Your task to perform on an android device: Check the settings for the Lyft app Image 0: 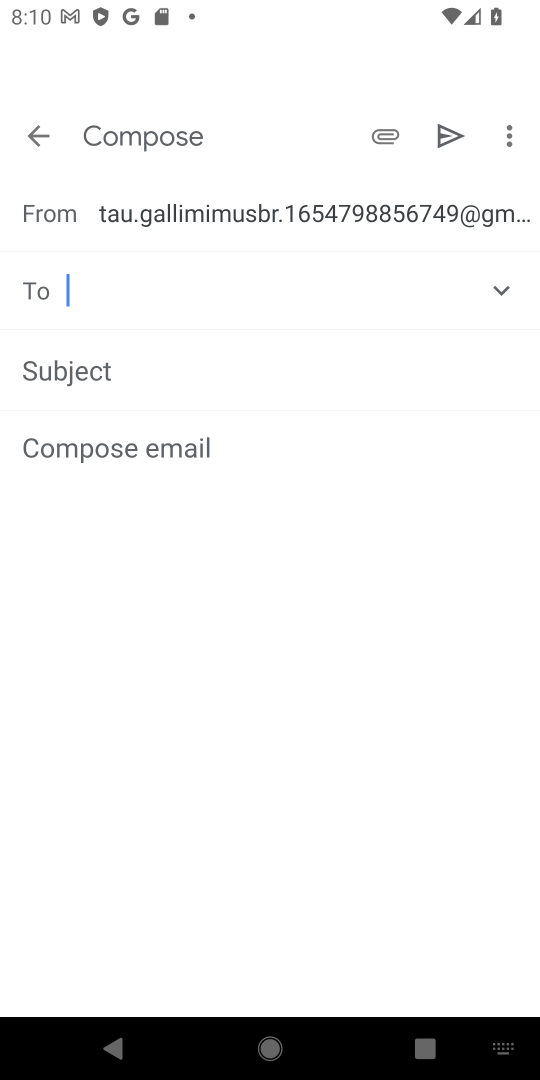
Step 0: press home button
Your task to perform on an android device: Check the settings for the Lyft app Image 1: 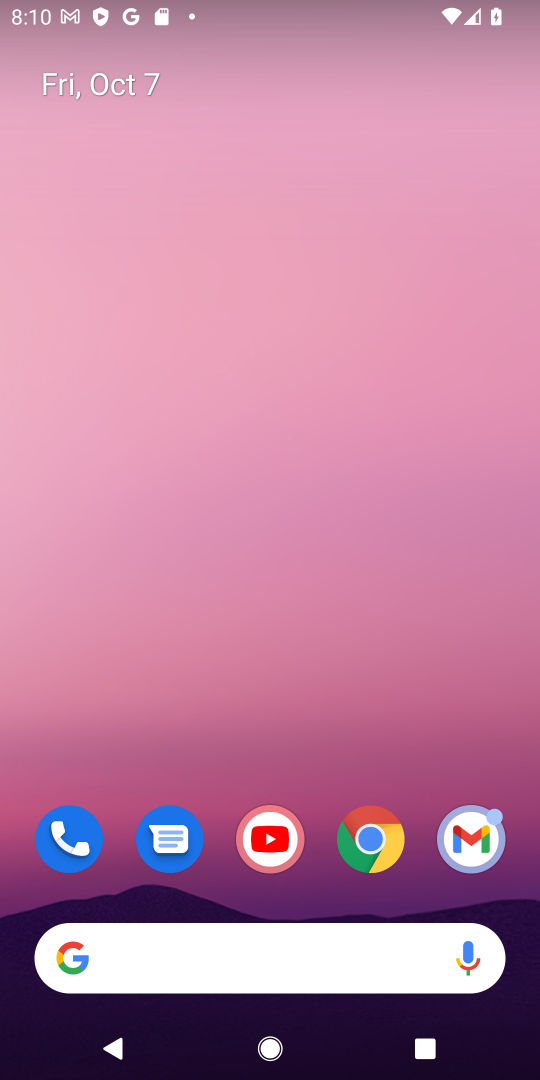
Step 1: click (364, 851)
Your task to perform on an android device: Check the settings for the Lyft app Image 2: 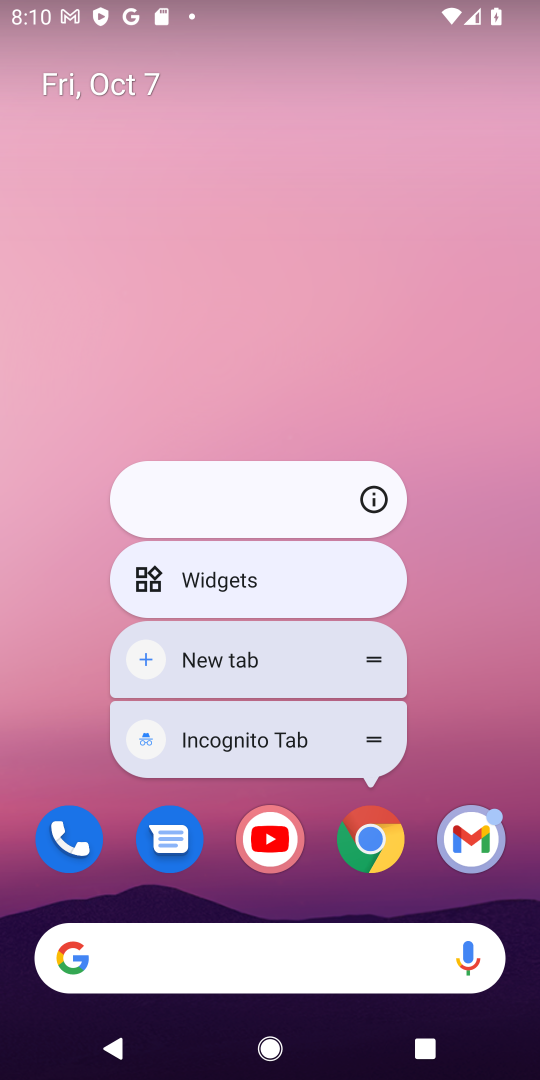
Step 2: press back button
Your task to perform on an android device: Check the settings for the Lyft app Image 3: 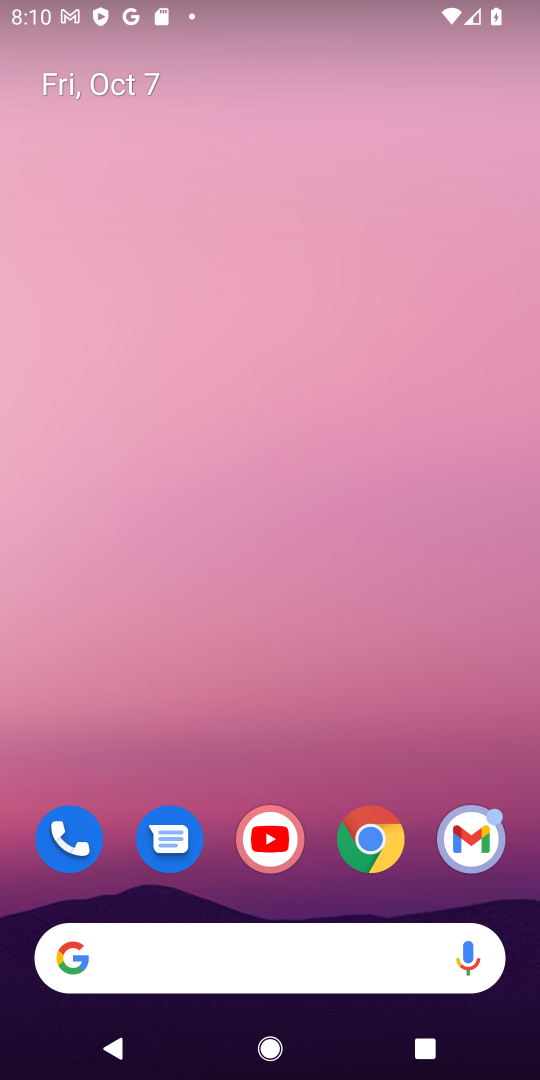
Step 3: press back button
Your task to perform on an android device: Check the settings for the Lyft app Image 4: 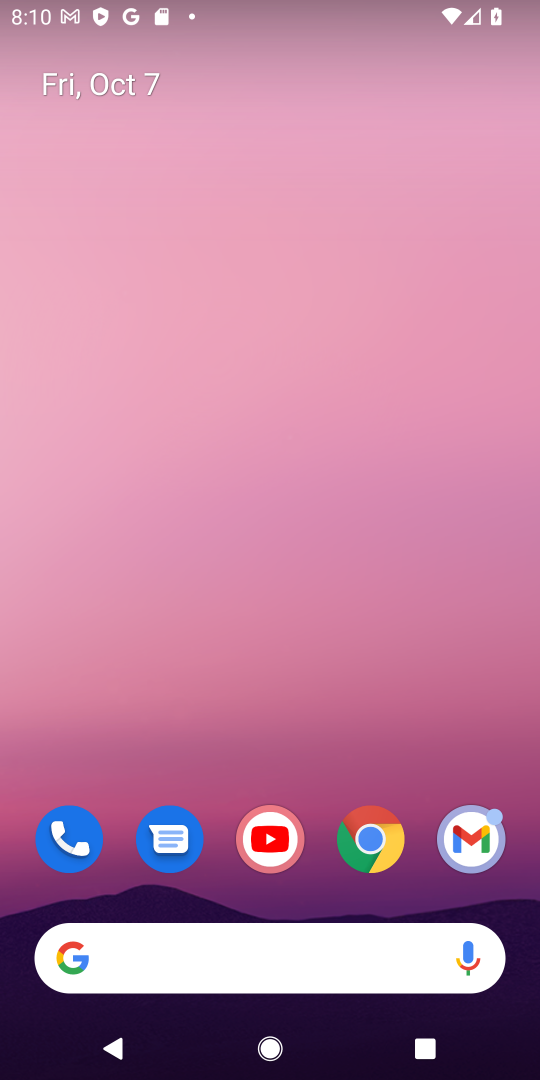
Step 4: click (361, 850)
Your task to perform on an android device: Check the settings for the Lyft app Image 5: 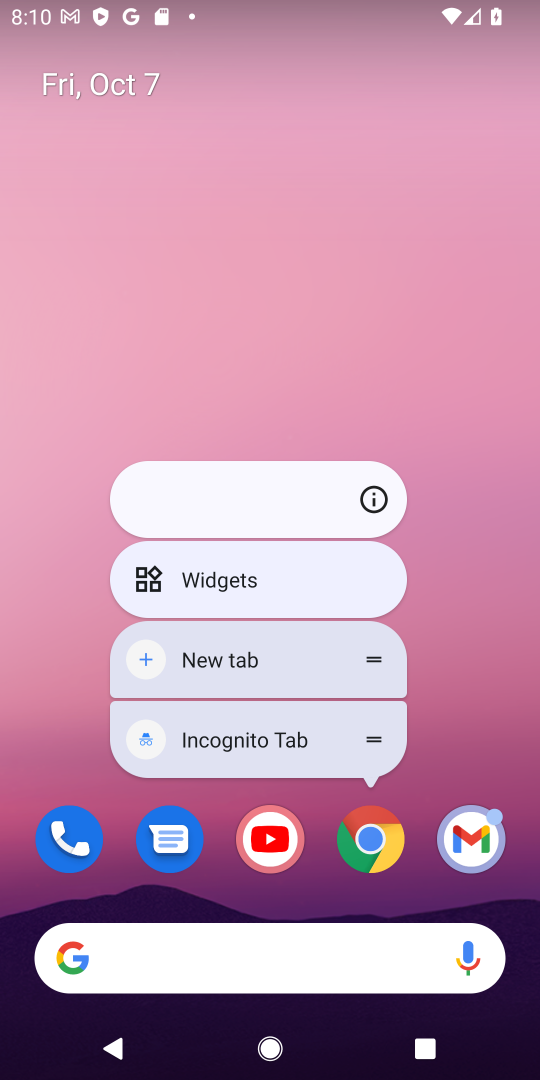
Step 5: click (362, 841)
Your task to perform on an android device: Check the settings for the Lyft app Image 6: 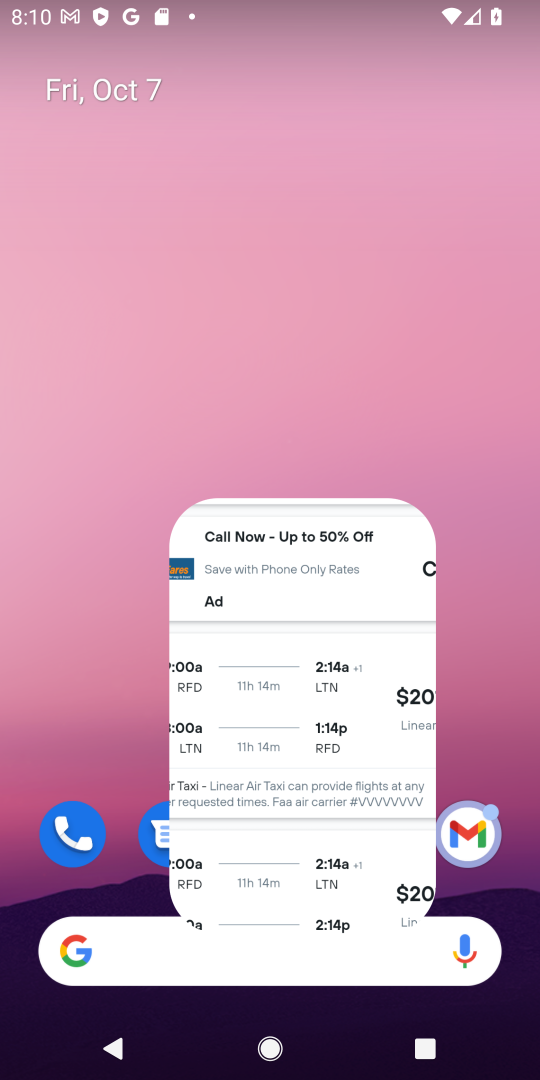
Step 6: press home button
Your task to perform on an android device: Check the settings for the Lyft app Image 7: 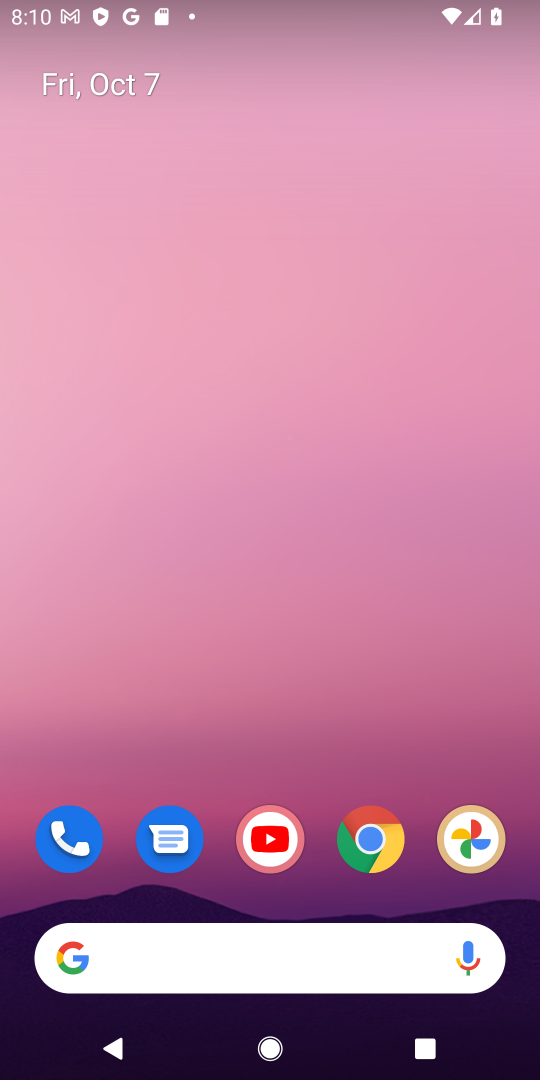
Step 7: click (365, 830)
Your task to perform on an android device: Check the settings for the Lyft app Image 8: 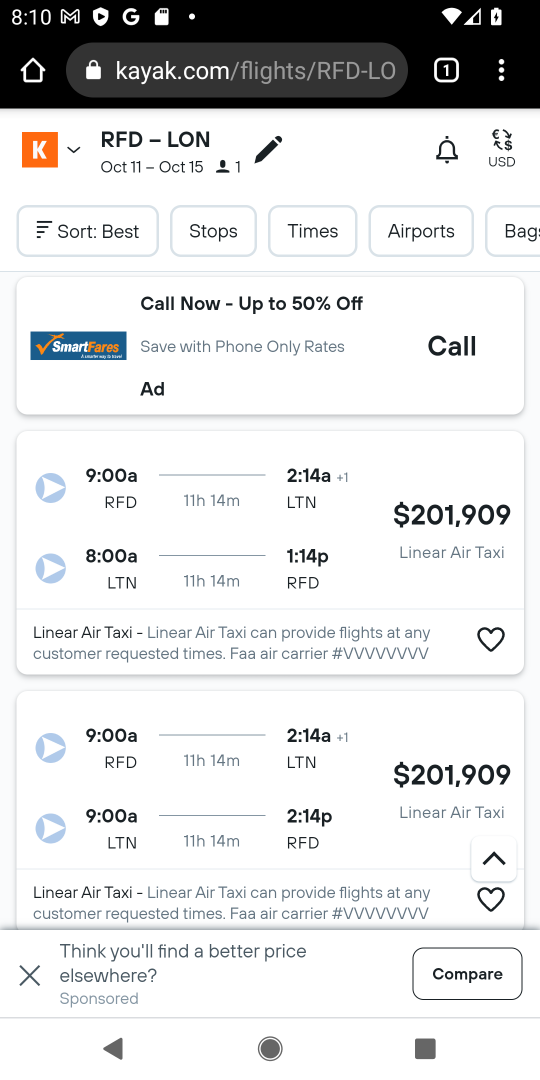
Step 8: click (255, 71)
Your task to perform on an android device: Check the settings for the Lyft app Image 9: 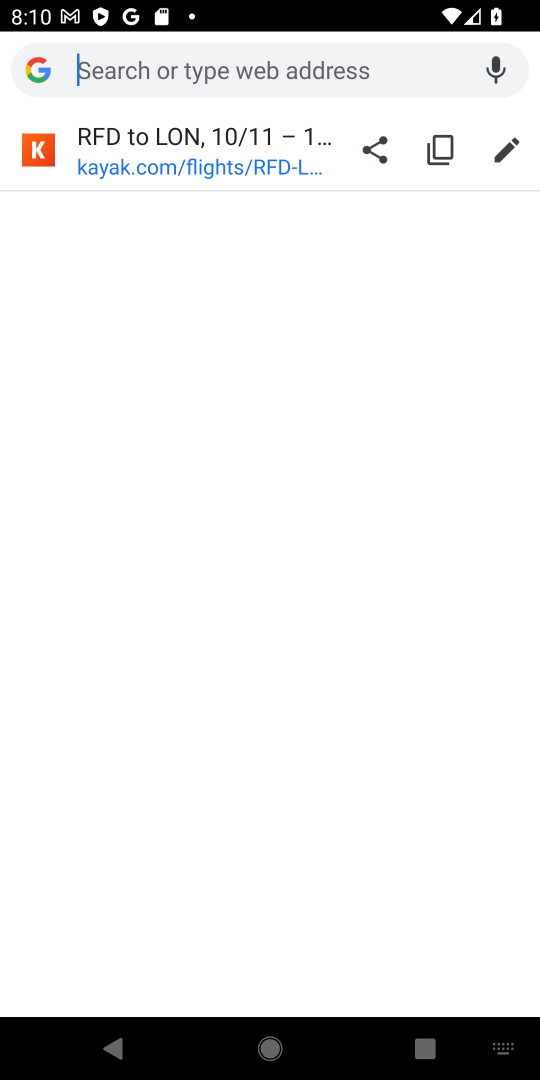
Step 9: type "lyft app"
Your task to perform on an android device: Check the settings for the Lyft app Image 10: 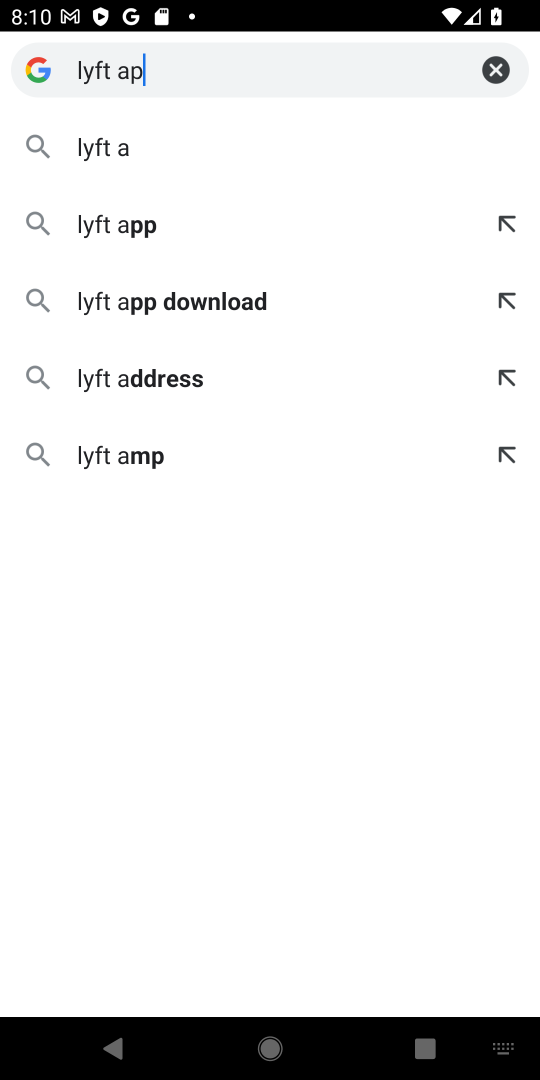
Step 10: type ""
Your task to perform on an android device: Check the settings for the Lyft app Image 11: 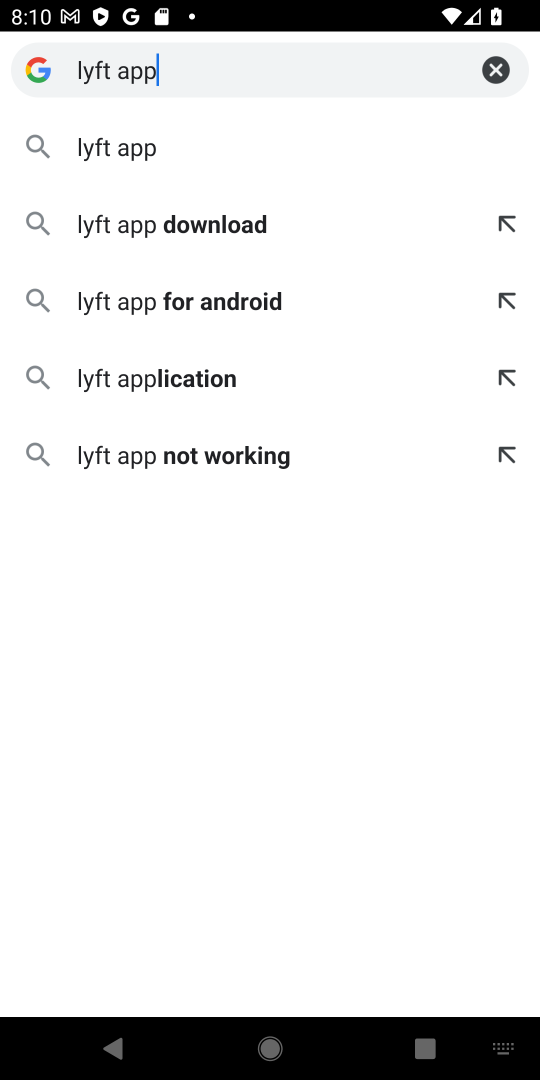
Step 11: click (95, 142)
Your task to perform on an android device: Check the settings for the Lyft app Image 12: 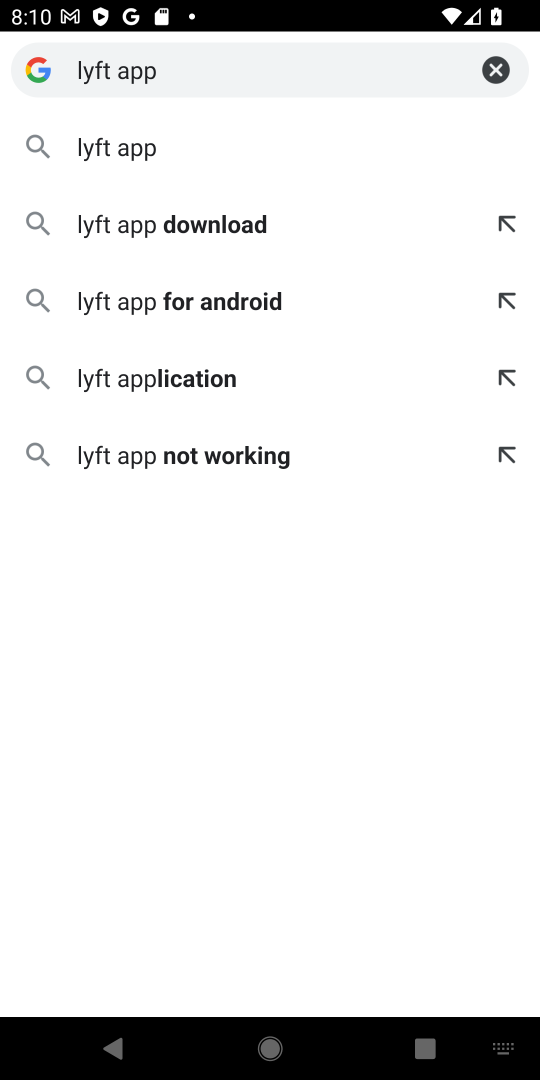
Step 12: click (135, 135)
Your task to perform on an android device: Check the settings for the Lyft app Image 13: 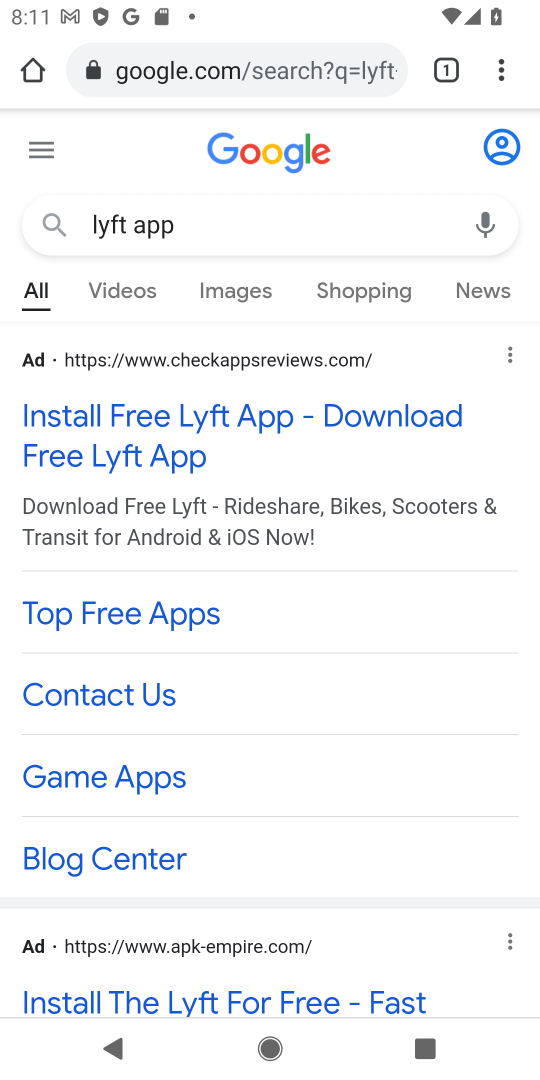
Step 13: click (151, 417)
Your task to perform on an android device: Check the settings for the Lyft app Image 14: 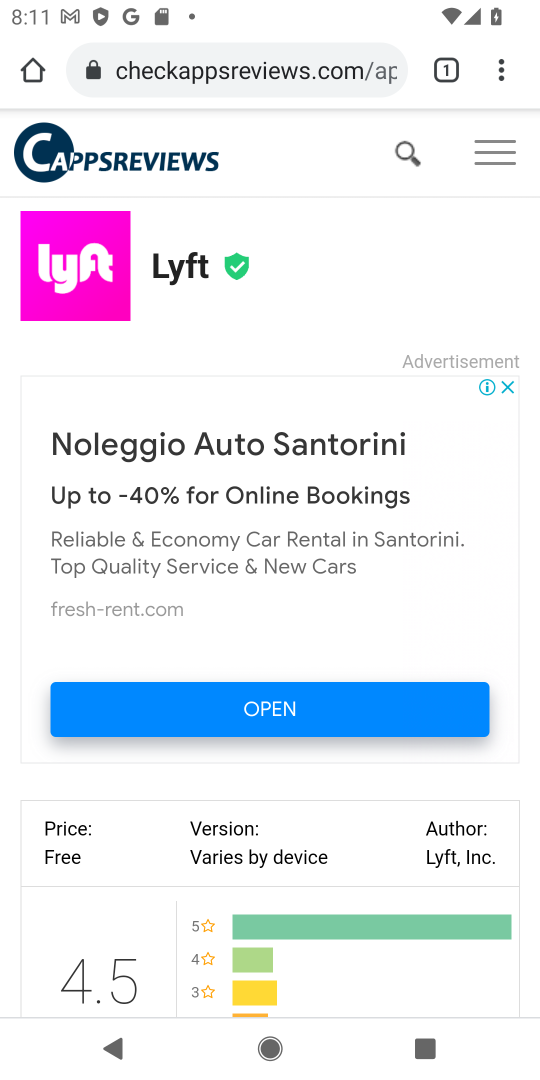
Step 14: click (246, 720)
Your task to perform on an android device: Check the settings for the Lyft app Image 15: 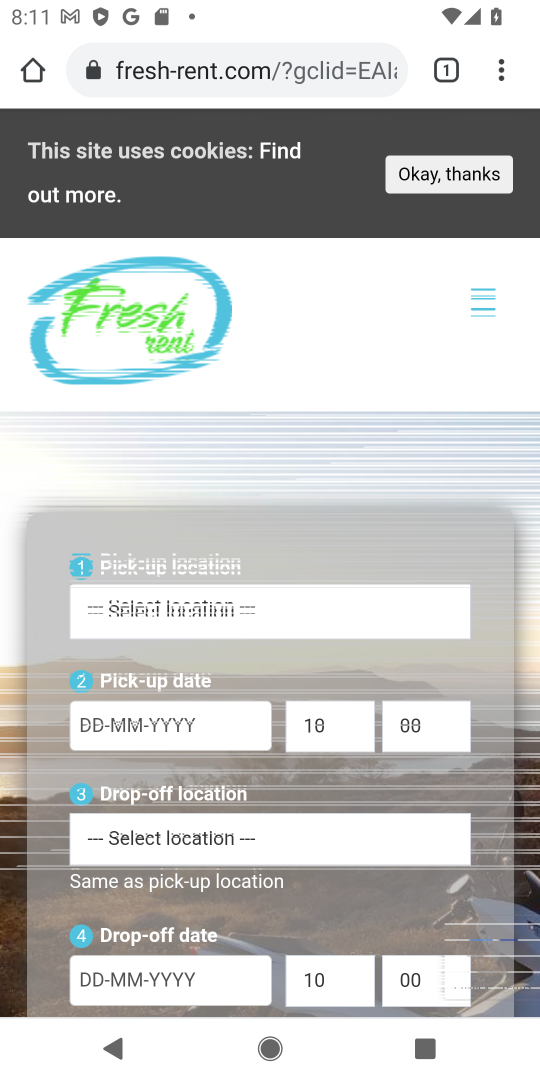
Step 15: click (483, 303)
Your task to perform on an android device: Check the settings for the Lyft app Image 16: 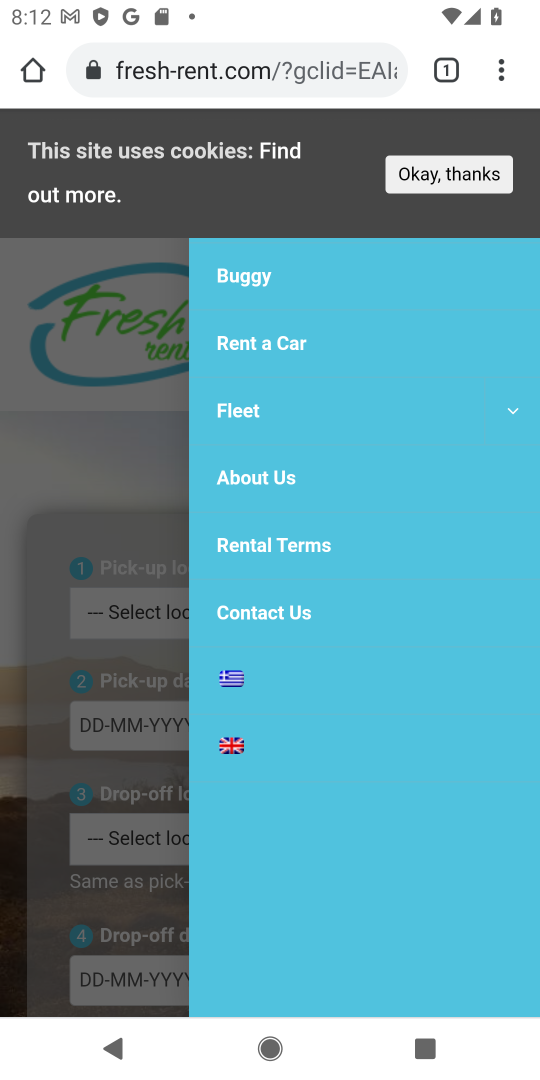
Step 16: press back button
Your task to perform on an android device: Check the settings for the Lyft app Image 17: 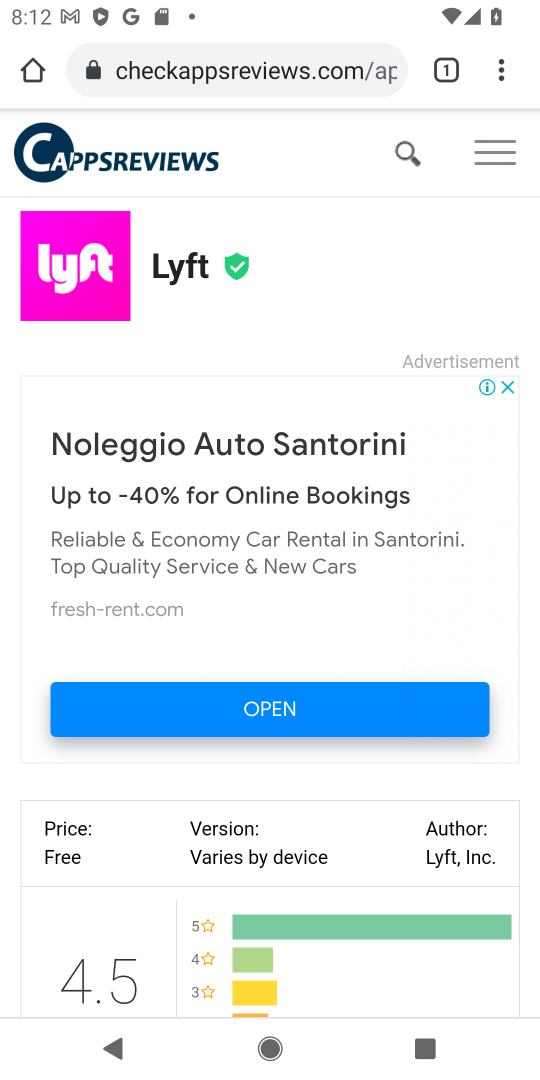
Step 17: drag from (314, 833) to (414, 484)
Your task to perform on an android device: Check the settings for the Lyft app Image 18: 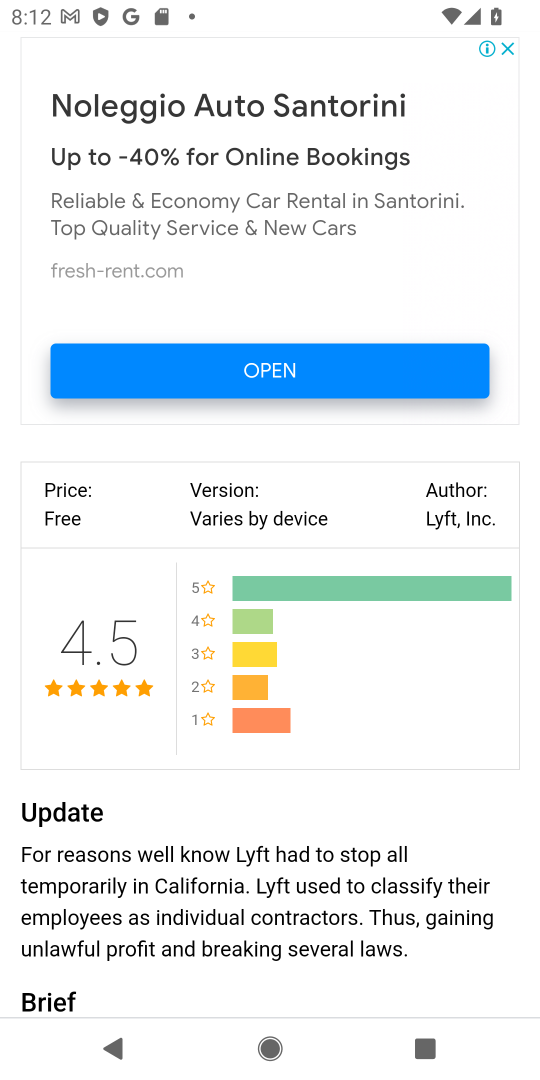
Step 18: drag from (417, 195) to (379, 877)
Your task to perform on an android device: Check the settings for the Lyft app Image 19: 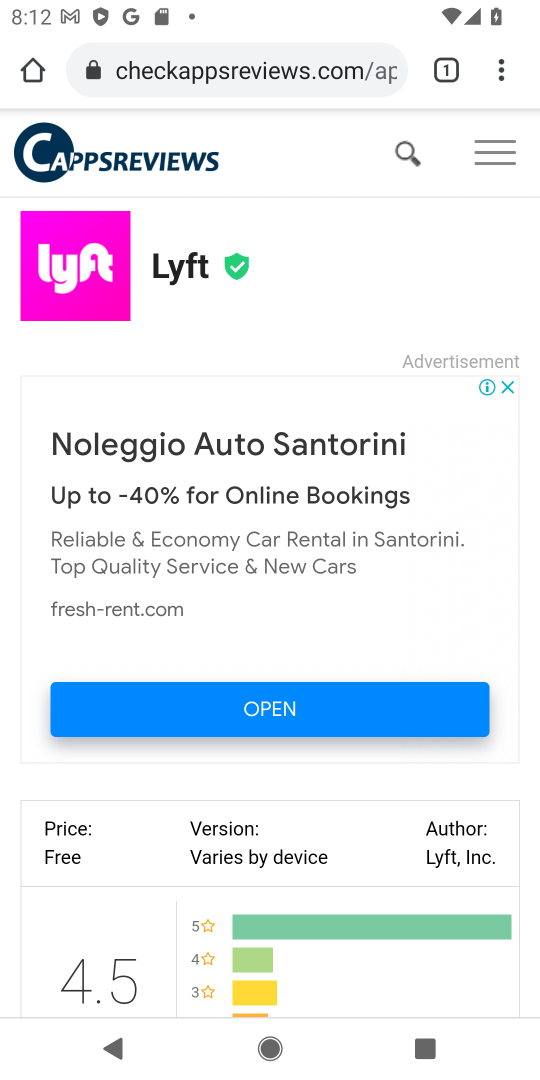
Step 19: click (493, 164)
Your task to perform on an android device: Check the settings for the Lyft app Image 20: 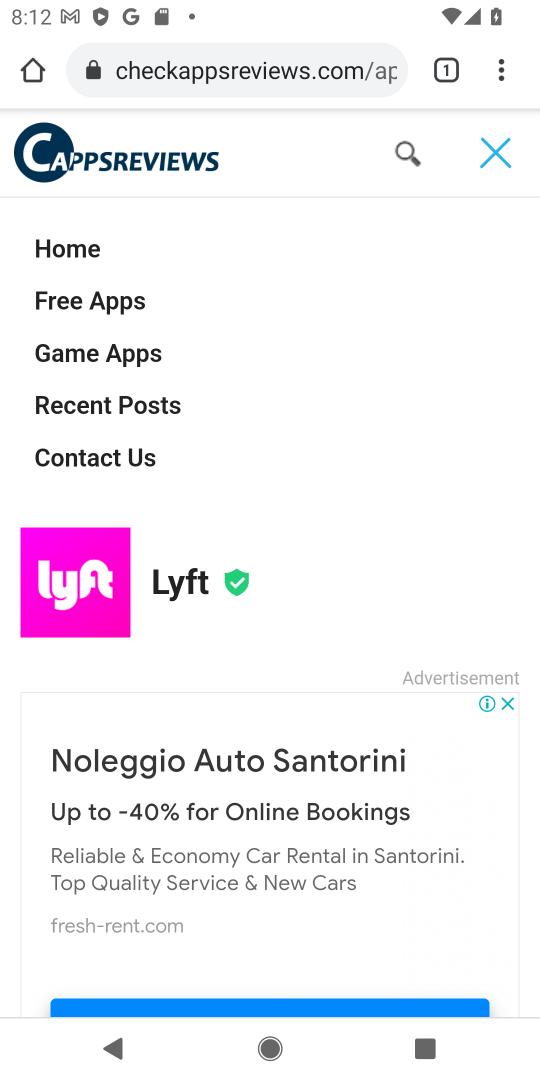
Step 20: click (343, 384)
Your task to perform on an android device: Check the settings for the Lyft app Image 21: 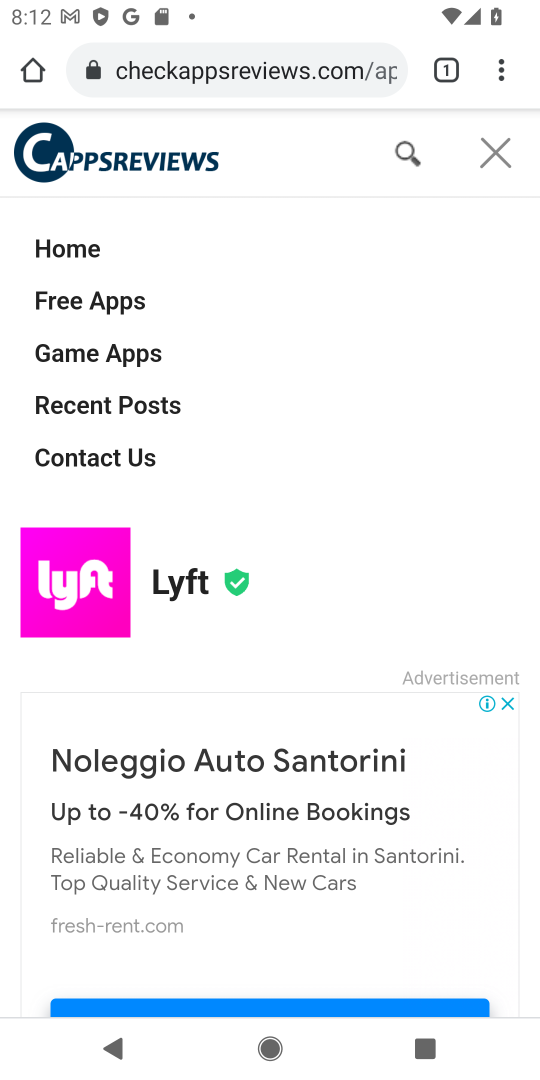
Step 21: click (240, 63)
Your task to perform on an android device: Check the settings for the Lyft app Image 22: 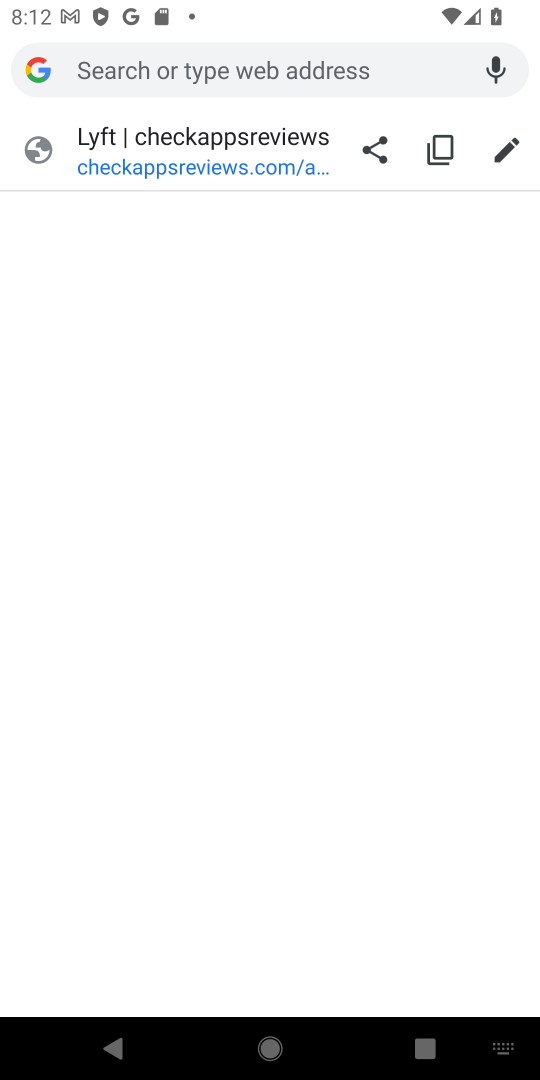
Step 22: type "lyft app"
Your task to perform on an android device: Check the settings for the Lyft app Image 23: 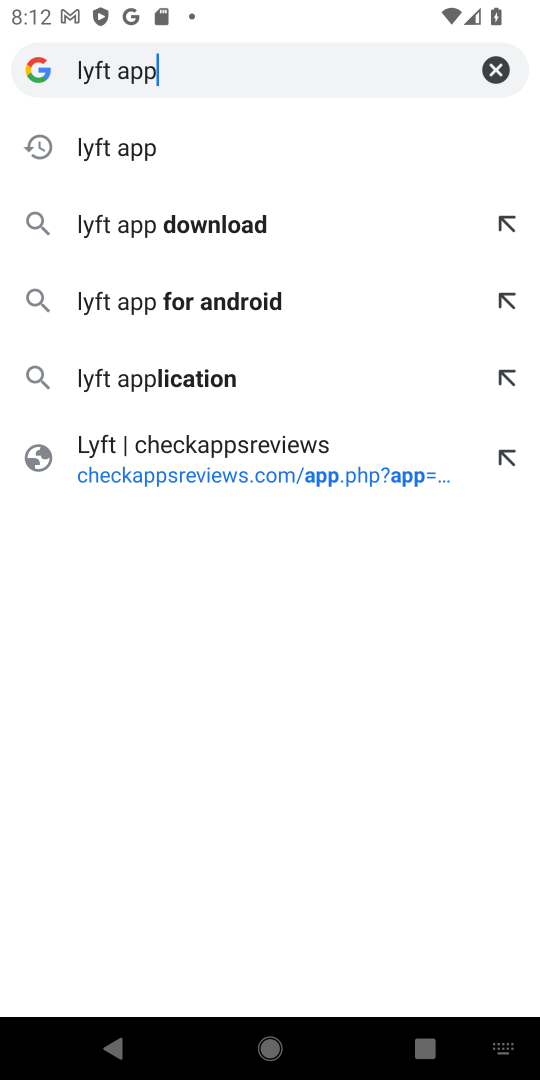
Step 23: click (110, 142)
Your task to perform on an android device: Check the settings for the Lyft app Image 24: 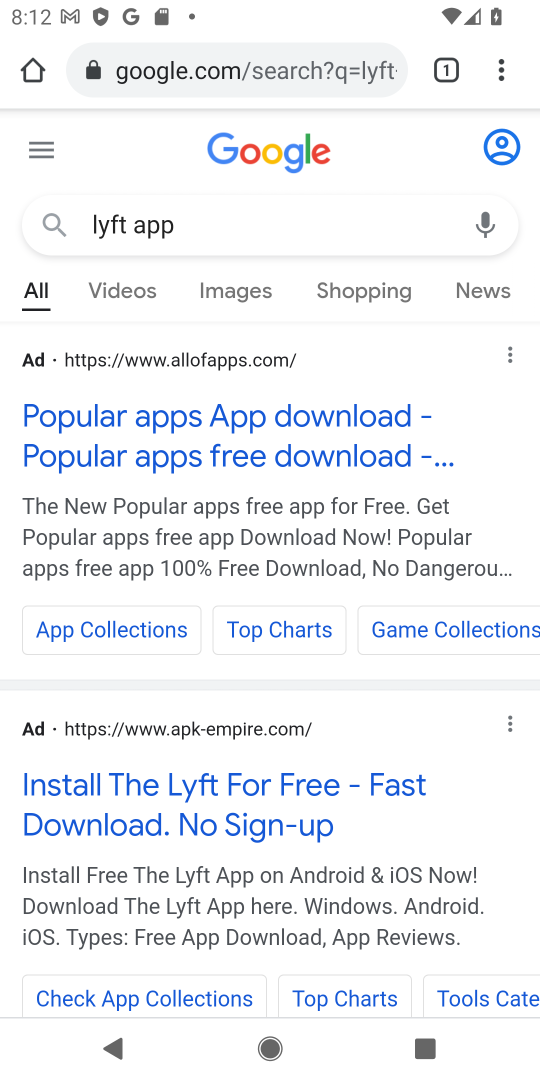
Step 24: drag from (291, 760) to (447, 380)
Your task to perform on an android device: Check the settings for the Lyft app Image 25: 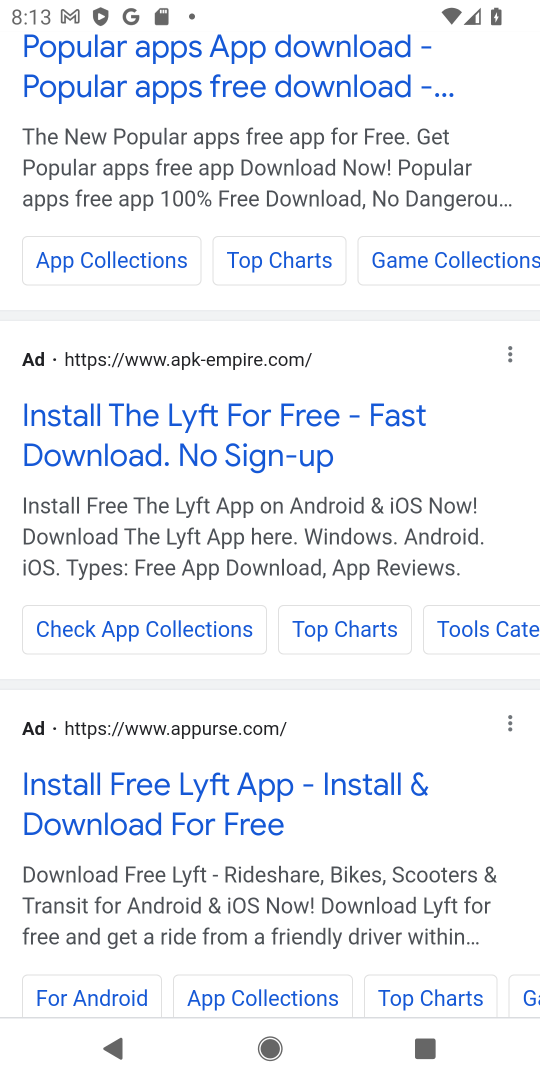
Step 25: drag from (434, 818) to (468, 279)
Your task to perform on an android device: Check the settings for the Lyft app Image 26: 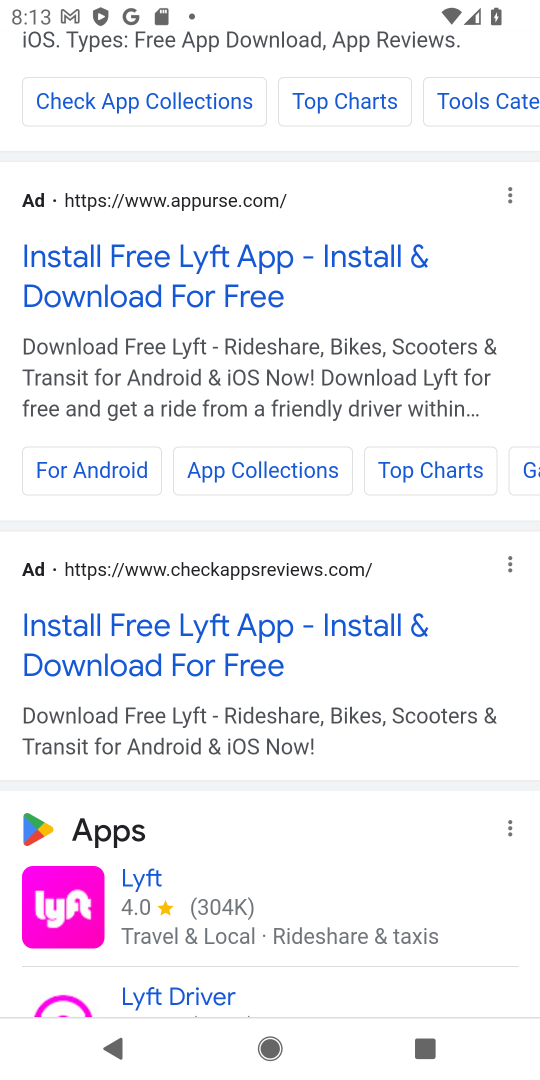
Step 26: click (49, 896)
Your task to perform on an android device: Check the settings for the Lyft app Image 27: 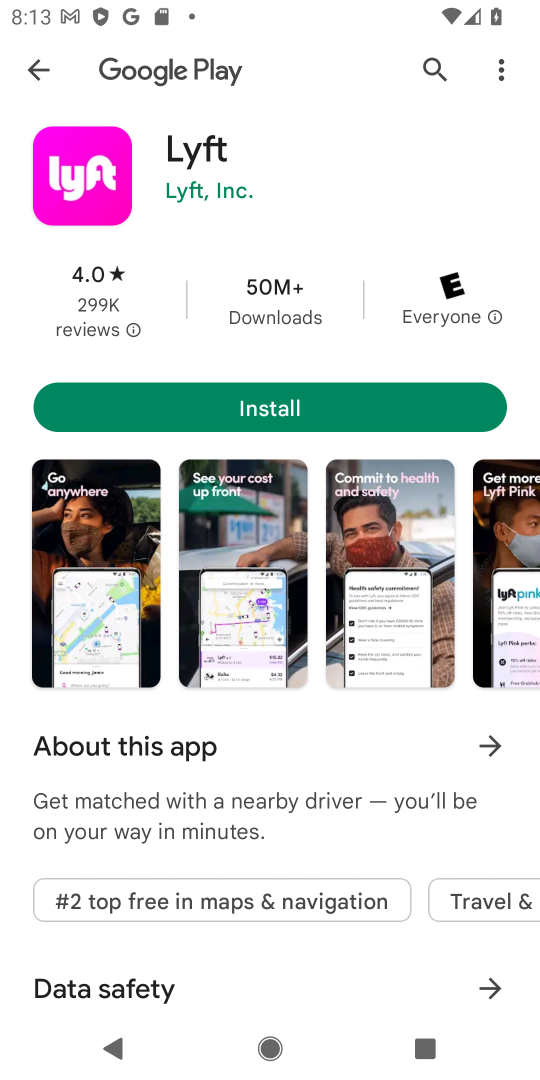
Step 27: click (250, 418)
Your task to perform on an android device: Check the settings for the Lyft app Image 28: 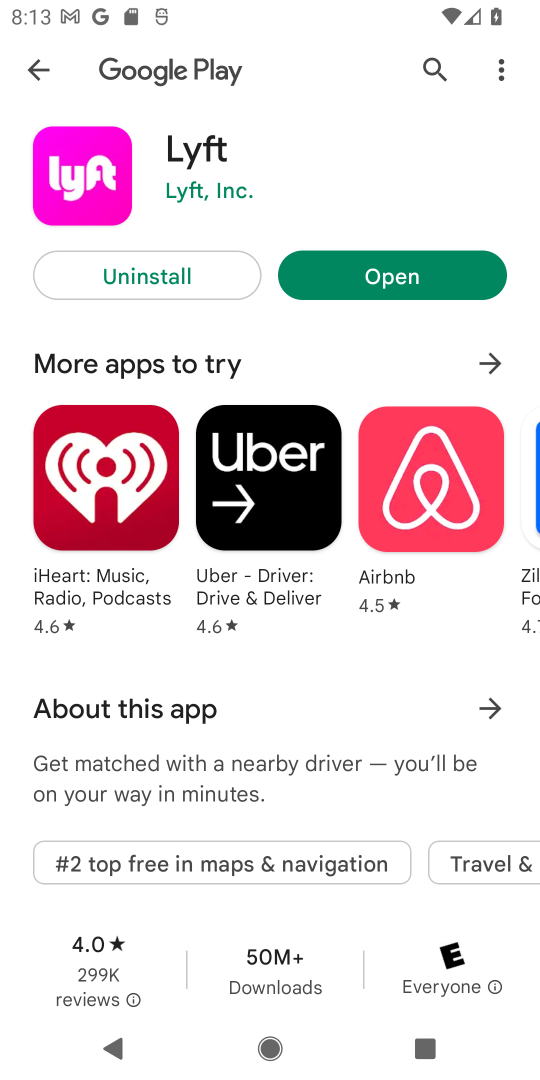
Step 28: click (335, 267)
Your task to perform on an android device: Check the settings for the Lyft app Image 29: 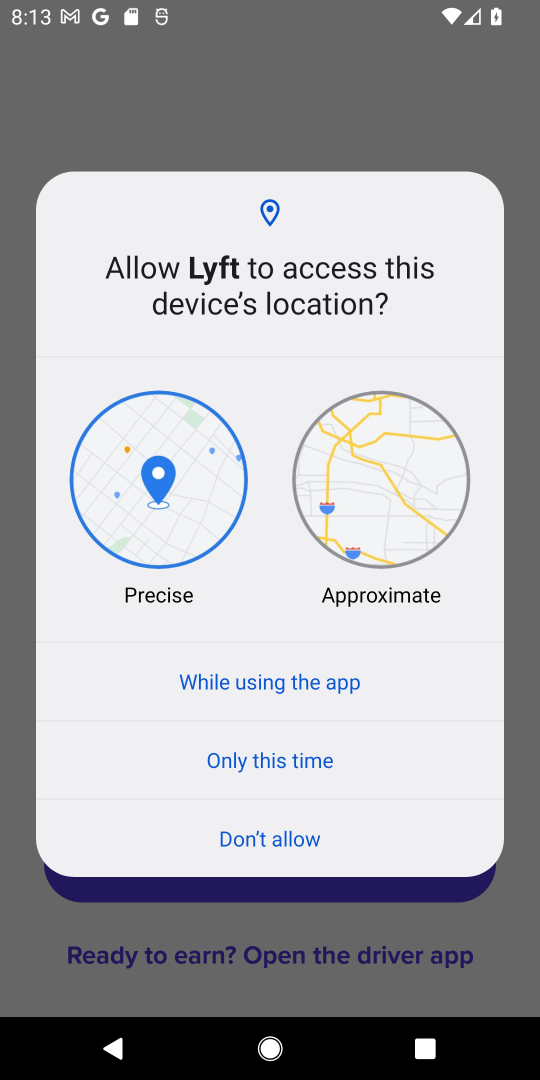
Step 29: click (258, 841)
Your task to perform on an android device: Check the settings for the Lyft app Image 30: 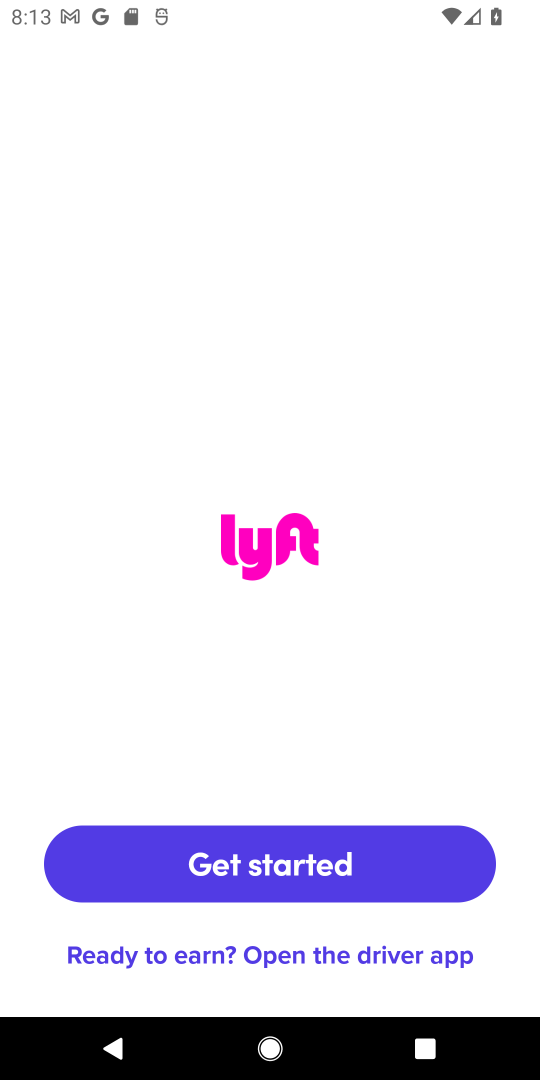
Step 30: click (237, 872)
Your task to perform on an android device: Check the settings for the Lyft app Image 31: 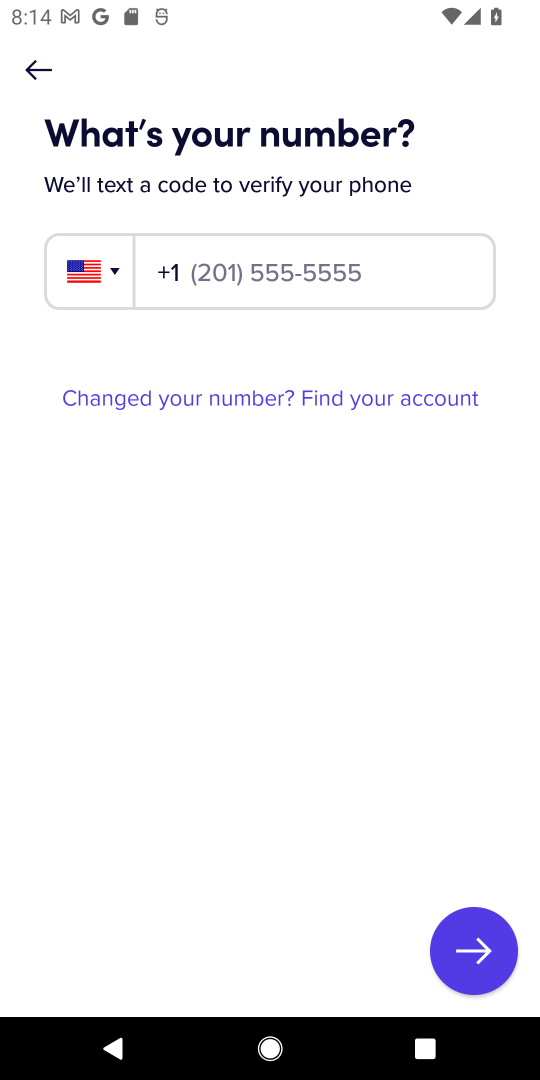
Step 31: click (495, 944)
Your task to perform on an android device: Check the settings for the Lyft app Image 32: 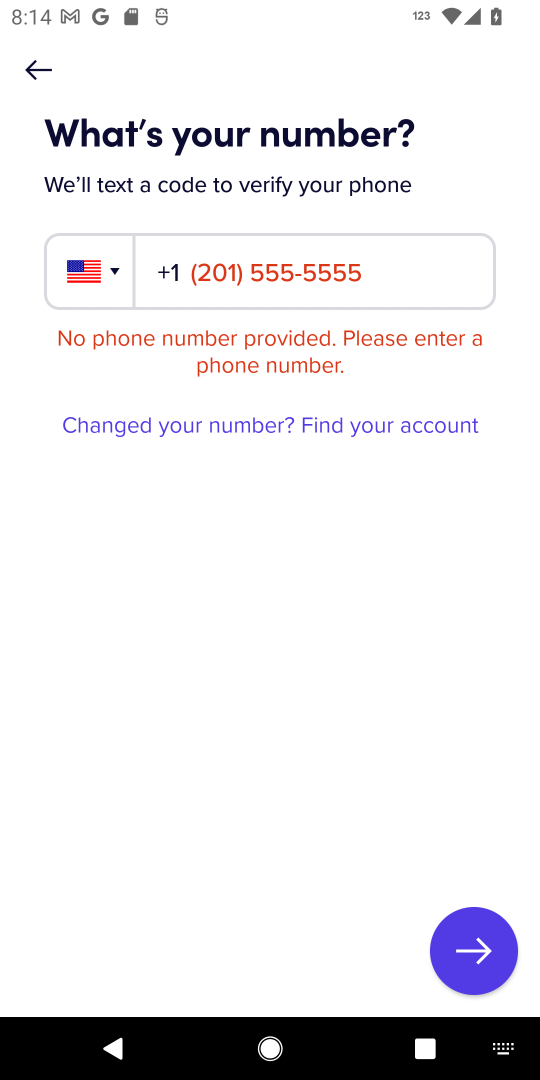
Step 32: task complete